Your task to perform on an android device: toggle sleep mode Image 0: 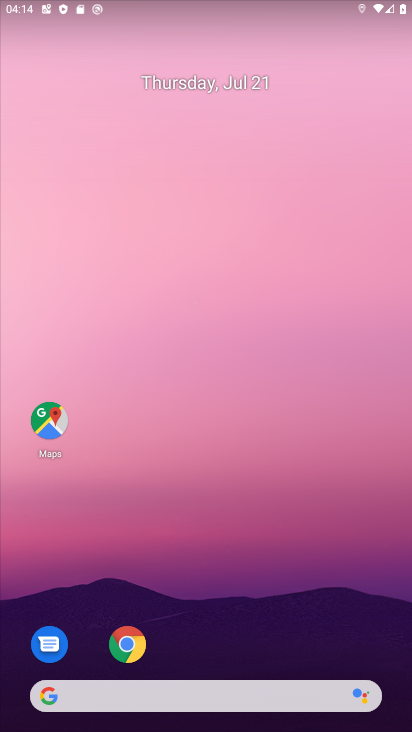
Step 0: drag from (296, 657) to (315, 24)
Your task to perform on an android device: toggle sleep mode Image 1: 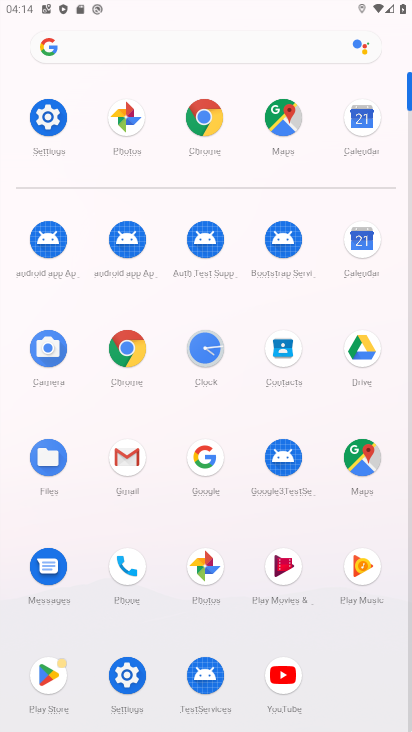
Step 1: click (44, 120)
Your task to perform on an android device: toggle sleep mode Image 2: 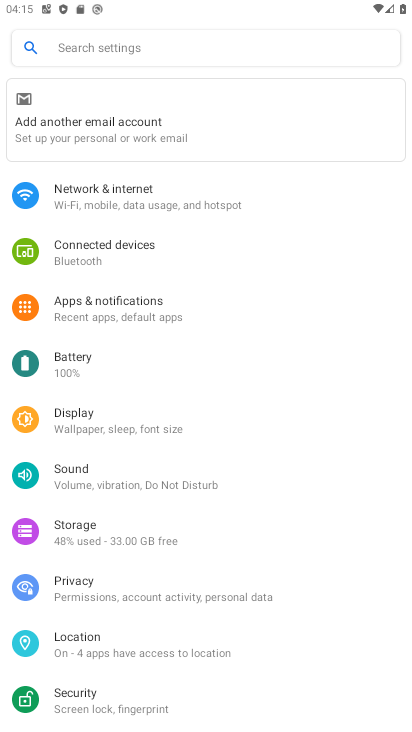
Step 2: click (75, 420)
Your task to perform on an android device: toggle sleep mode Image 3: 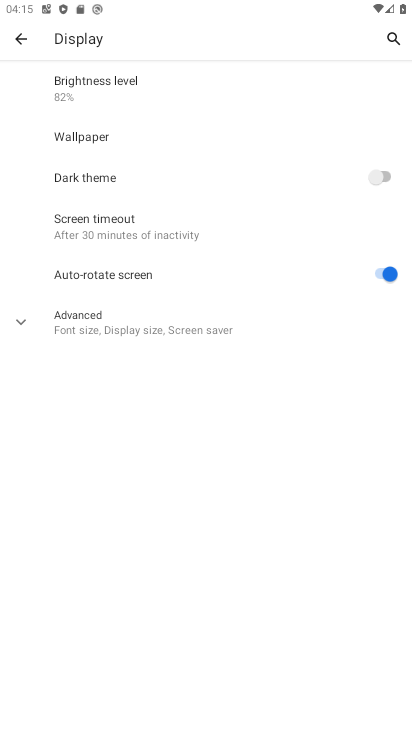
Step 3: click (22, 327)
Your task to perform on an android device: toggle sleep mode Image 4: 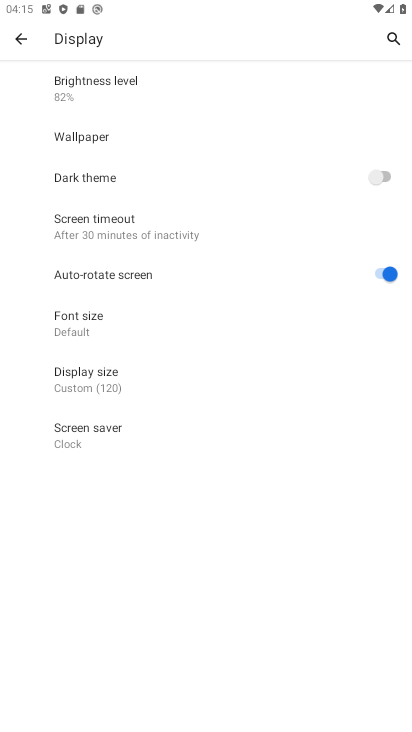
Step 4: task complete